Your task to perform on an android device: Open location settings Image 0: 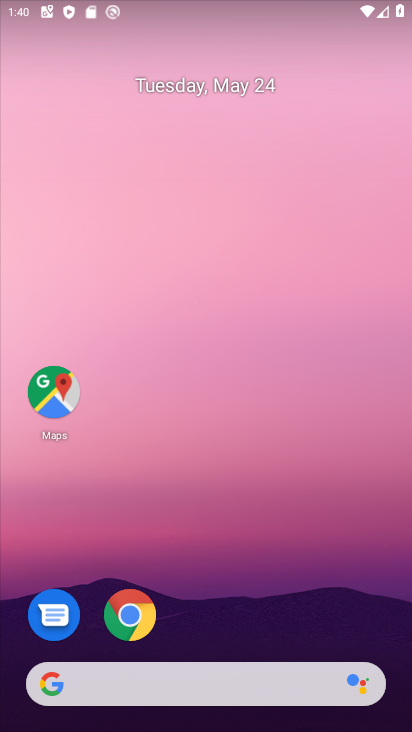
Step 0: press home button
Your task to perform on an android device: Open location settings Image 1: 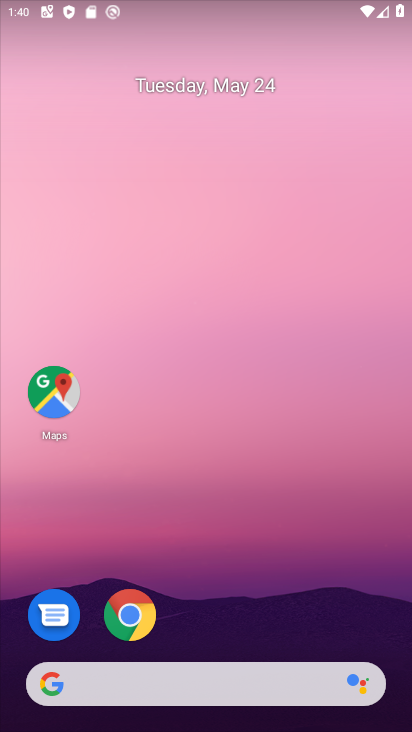
Step 1: drag from (228, 610) to (258, 53)
Your task to perform on an android device: Open location settings Image 2: 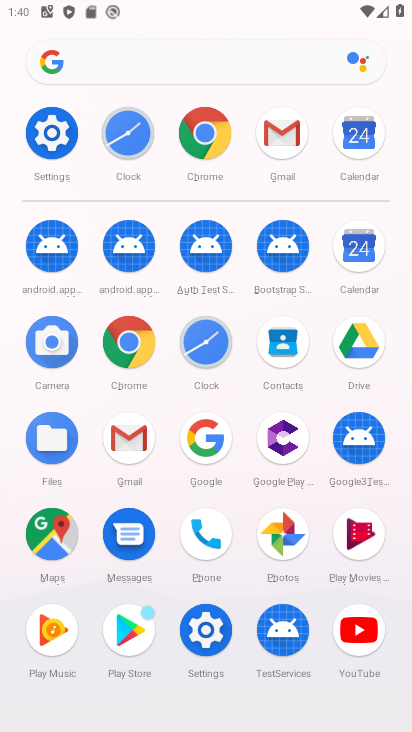
Step 2: click (46, 133)
Your task to perform on an android device: Open location settings Image 3: 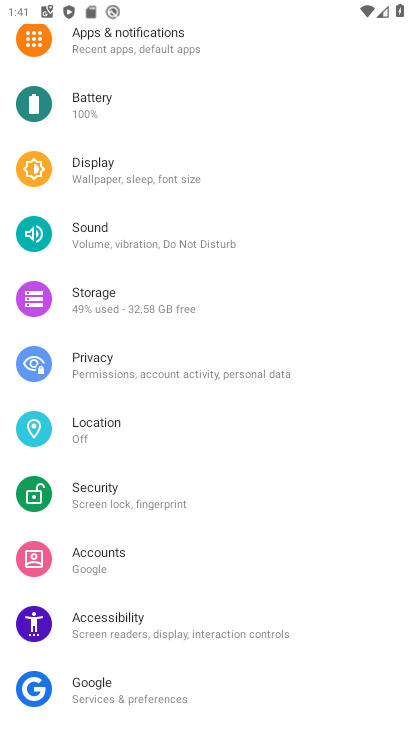
Step 3: click (112, 431)
Your task to perform on an android device: Open location settings Image 4: 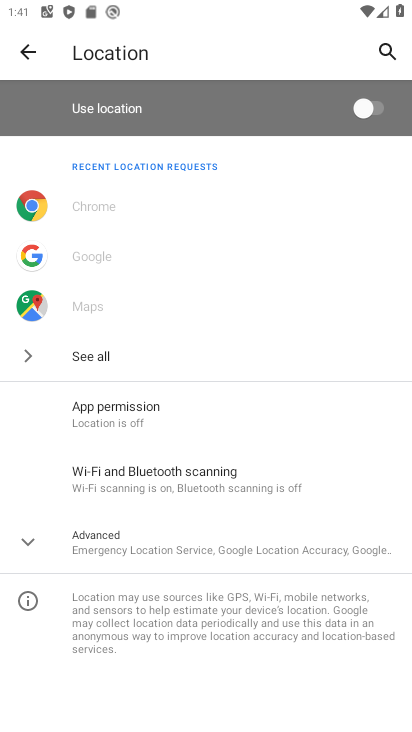
Step 4: click (26, 541)
Your task to perform on an android device: Open location settings Image 5: 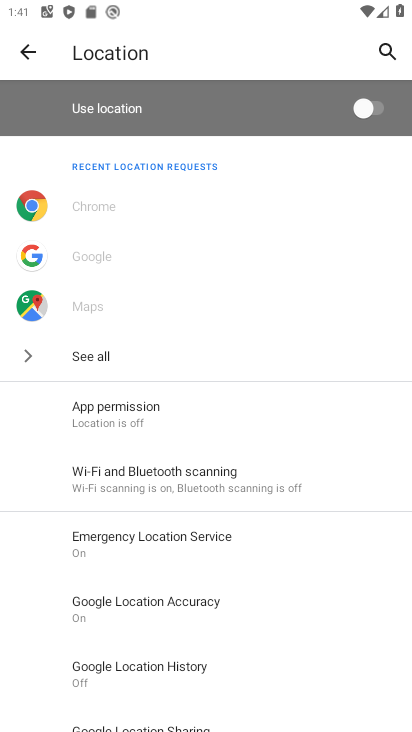
Step 5: task complete